Your task to perform on an android device: Go to privacy settings Image 0: 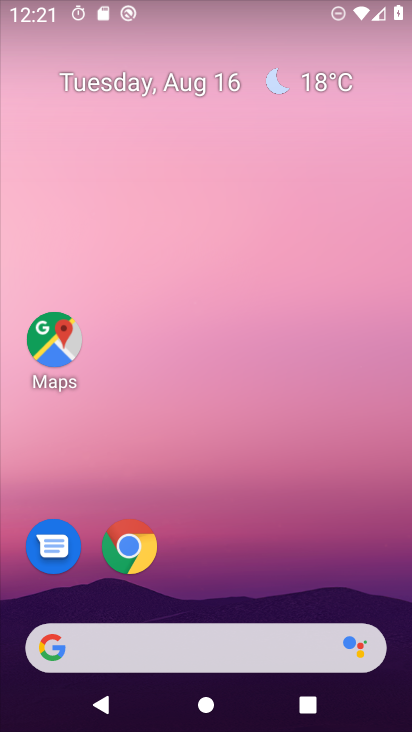
Step 0: drag from (225, 597) to (228, 105)
Your task to perform on an android device: Go to privacy settings Image 1: 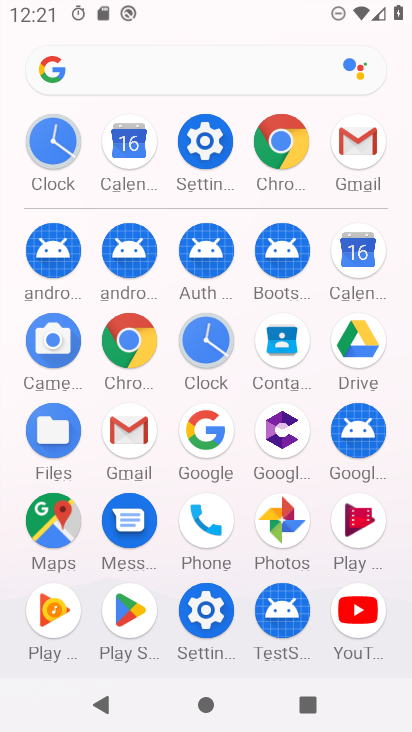
Step 1: click (211, 130)
Your task to perform on an android device: Go to privacy settings Image 2: 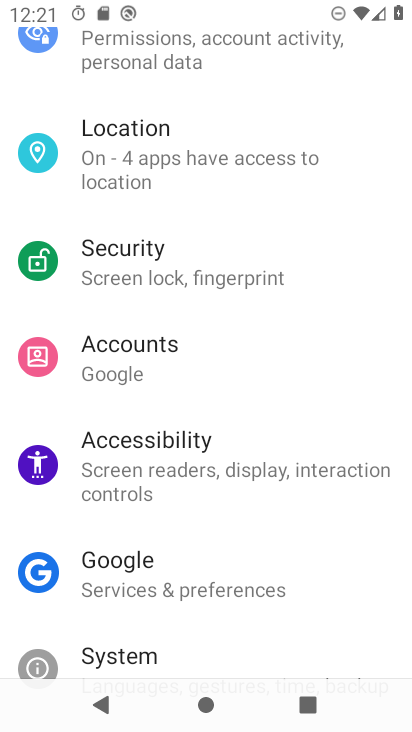
Step 2: drag from (128, 598) to (100, 190)
Your task to perform on an android device: Go to privacy settings Image 3: 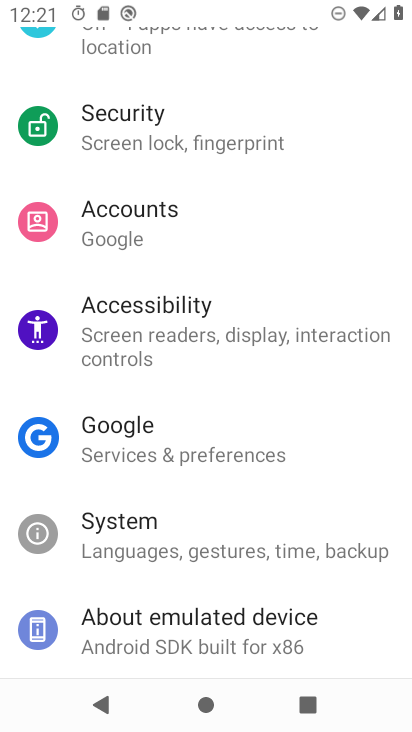
Step 3: drag from (172, 122) to (198, 564)
Your task to perform on an android device: Go to privacy settings Image 4: 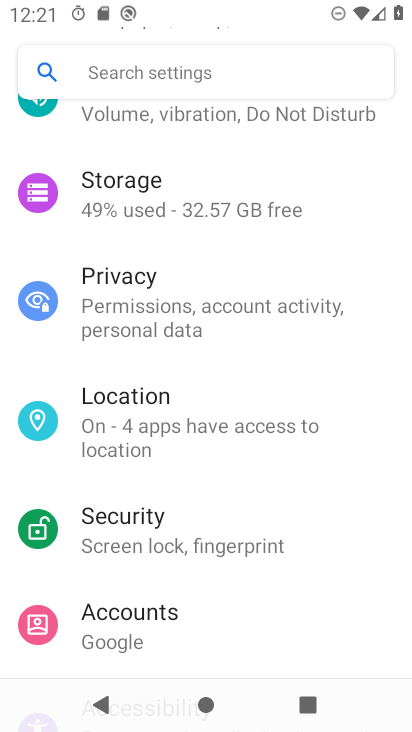
Step 4: click (111, 293)
Your task to perform on an android device: Go to privacy settings Image 5: 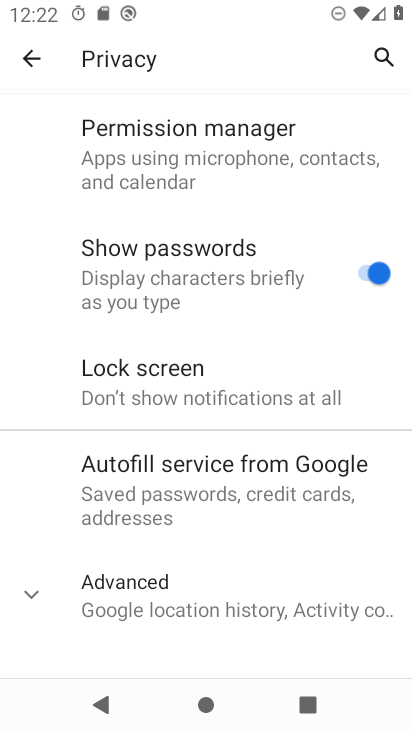
Step 5: task complete